Your task to perform on an android device: See recent photos Image 0: 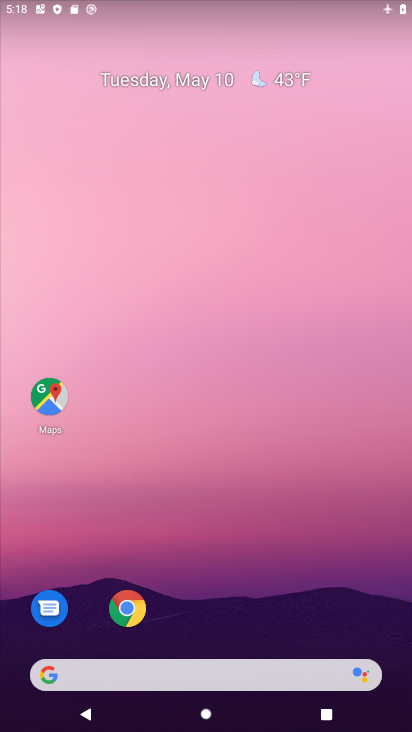
Step 0: drag from (217, 612) to (319, 80)
Your task to perform on an android device: See recent photos Image 1: 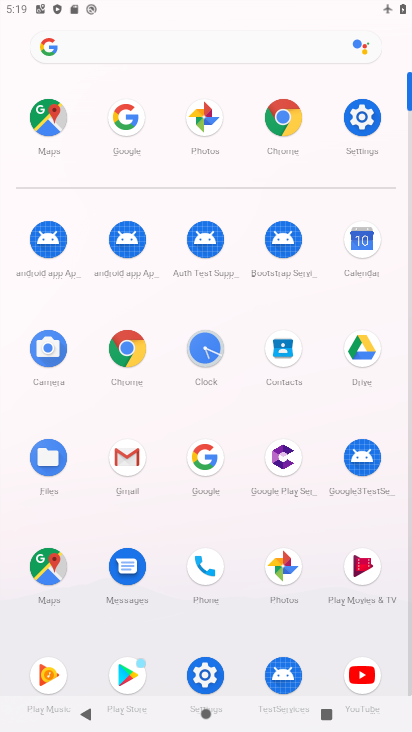
Step 1: click (286, 567)
Your task to perform on an android device: See recent photos Image 2: 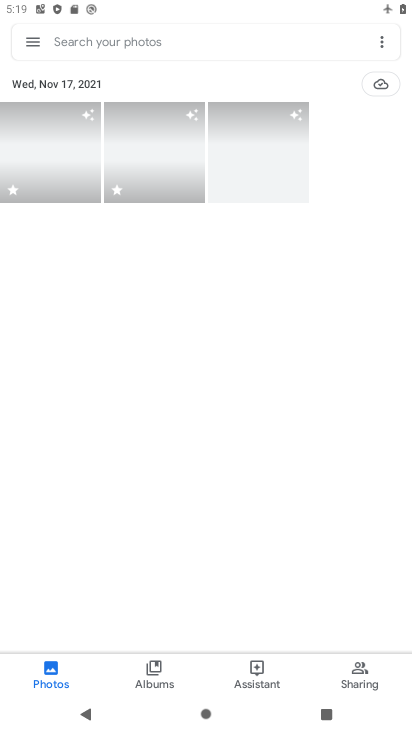
Step 2: task complete